Your task to perform on an android device: Open network settings Image 0: 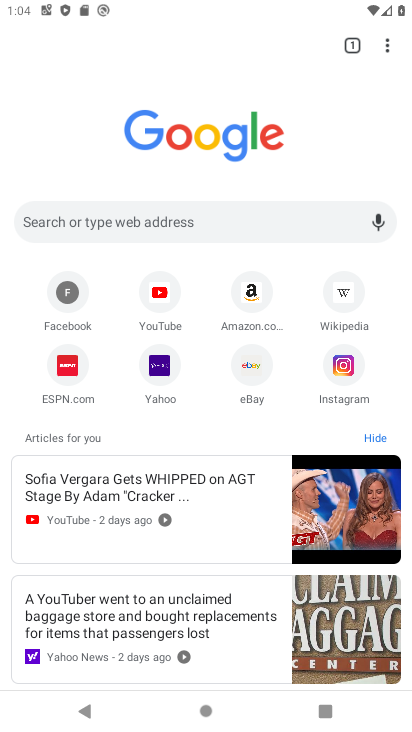
Step 0: press home button
Your task to perform on an android device: Open network settings Image 1: 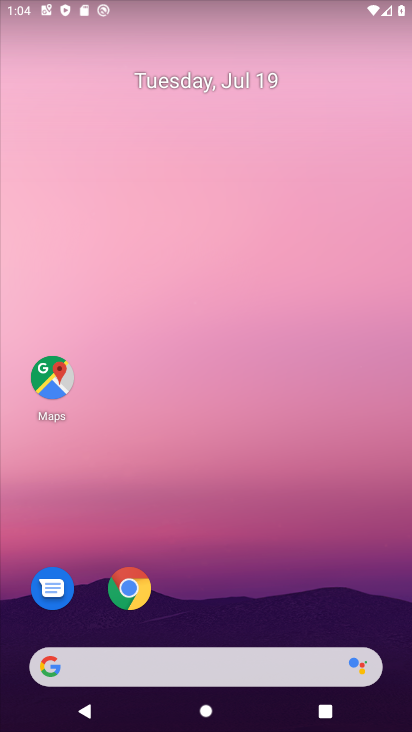
Step 1: drag from (43, 703) to (256, 194)
Your task to perform on an android device: Open network settings Image 2: 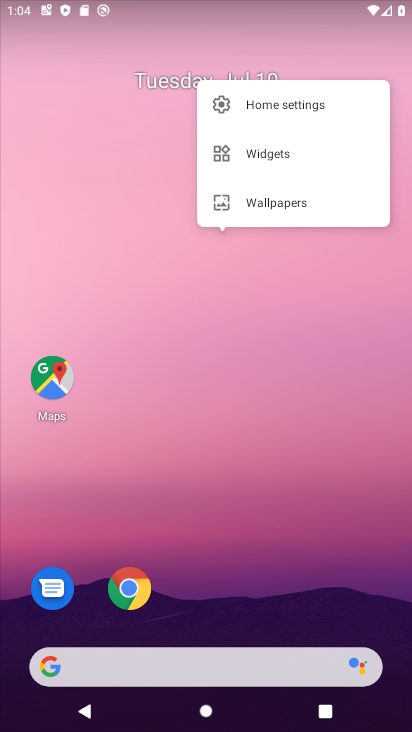
Step 2: drag from (7, 713) to (201, 120)
Your task to perform on an android device: Open network settings Image 3: 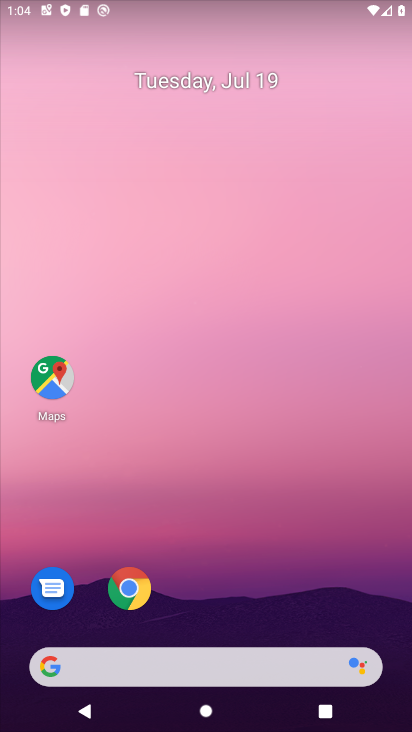
Step 3: drag from (144, 516) to (274, 5)
Your task to perform on an android device: Open network settings Image 4: 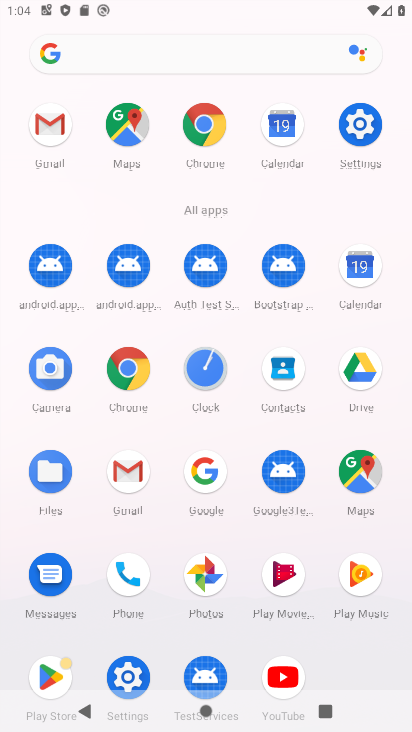
Step 4: click (133, 675)
Your task to perform on an android device: Open network settings Image 5: 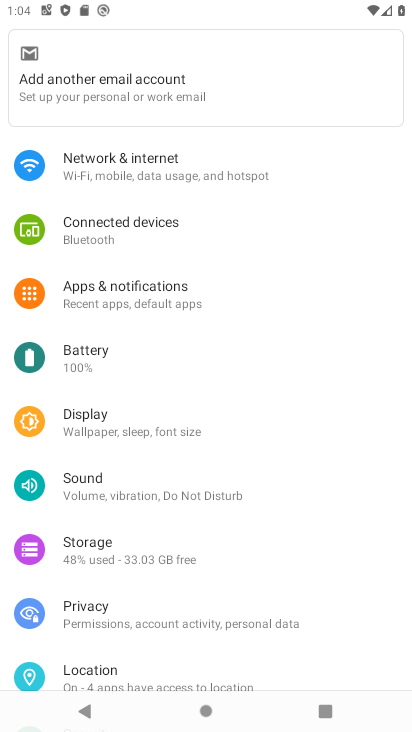
Step 5: click (123, 172)
Your task to perform on an android device: Open network settings Image 6: 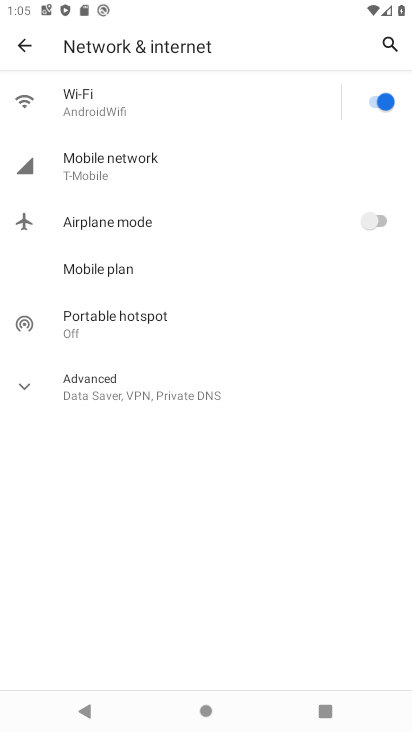
Step 6: click (105, 159)
Your task to perform on an android device: Open network settings Image 7: 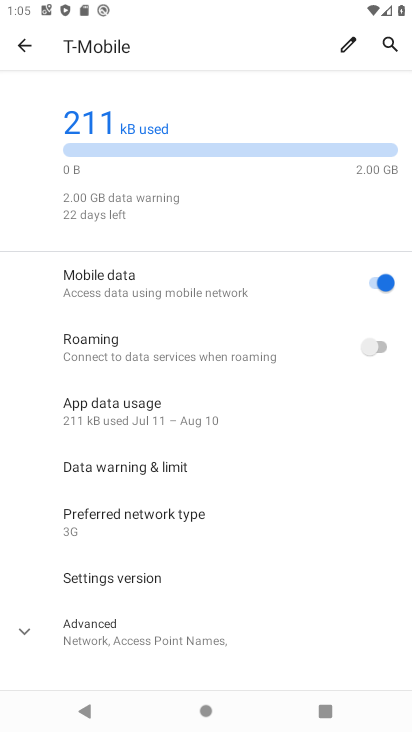
Step 7: task complete